Your task to perform on an android device: clear all cookies in the chrome app Image 0: 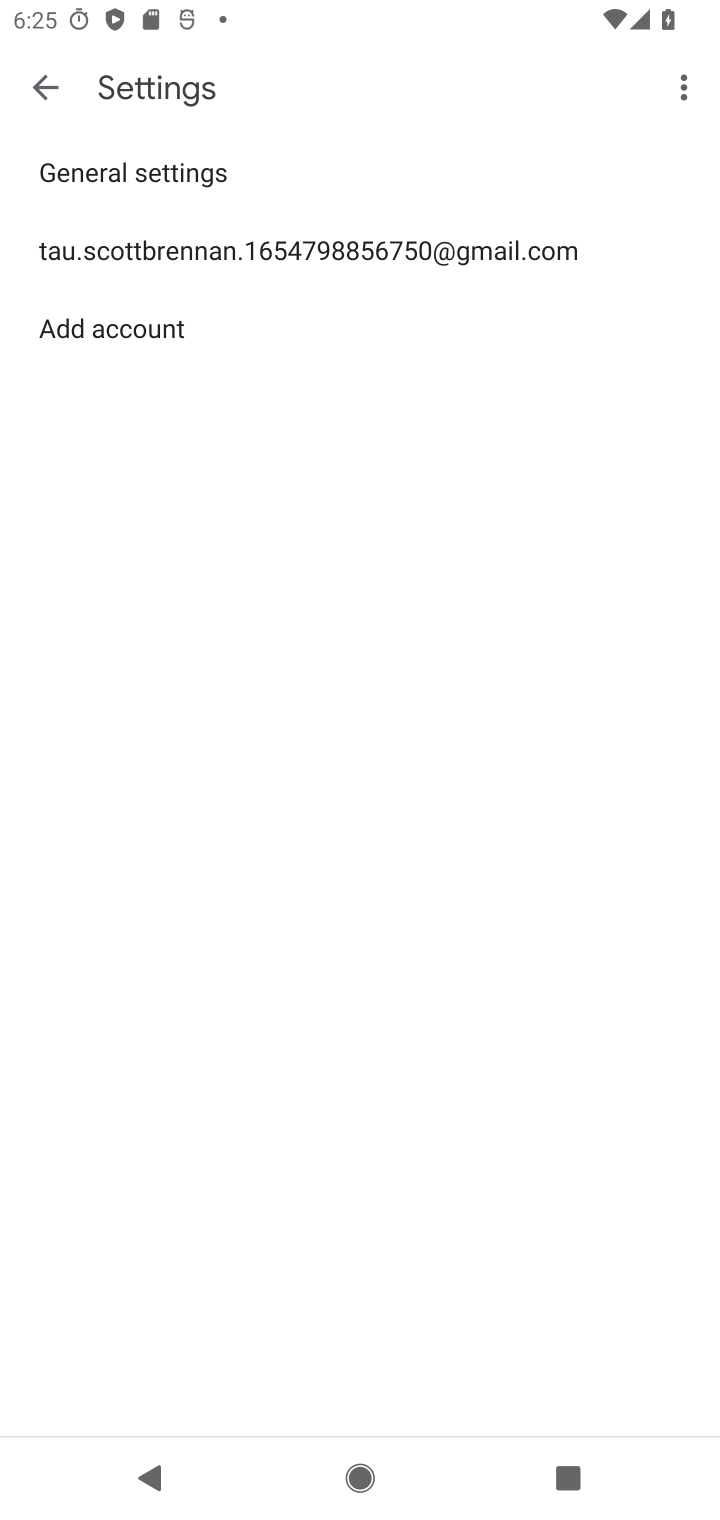
Step 0: press home button
Your task to perform on an android device: clear all cookies in the chrome app Image 1: 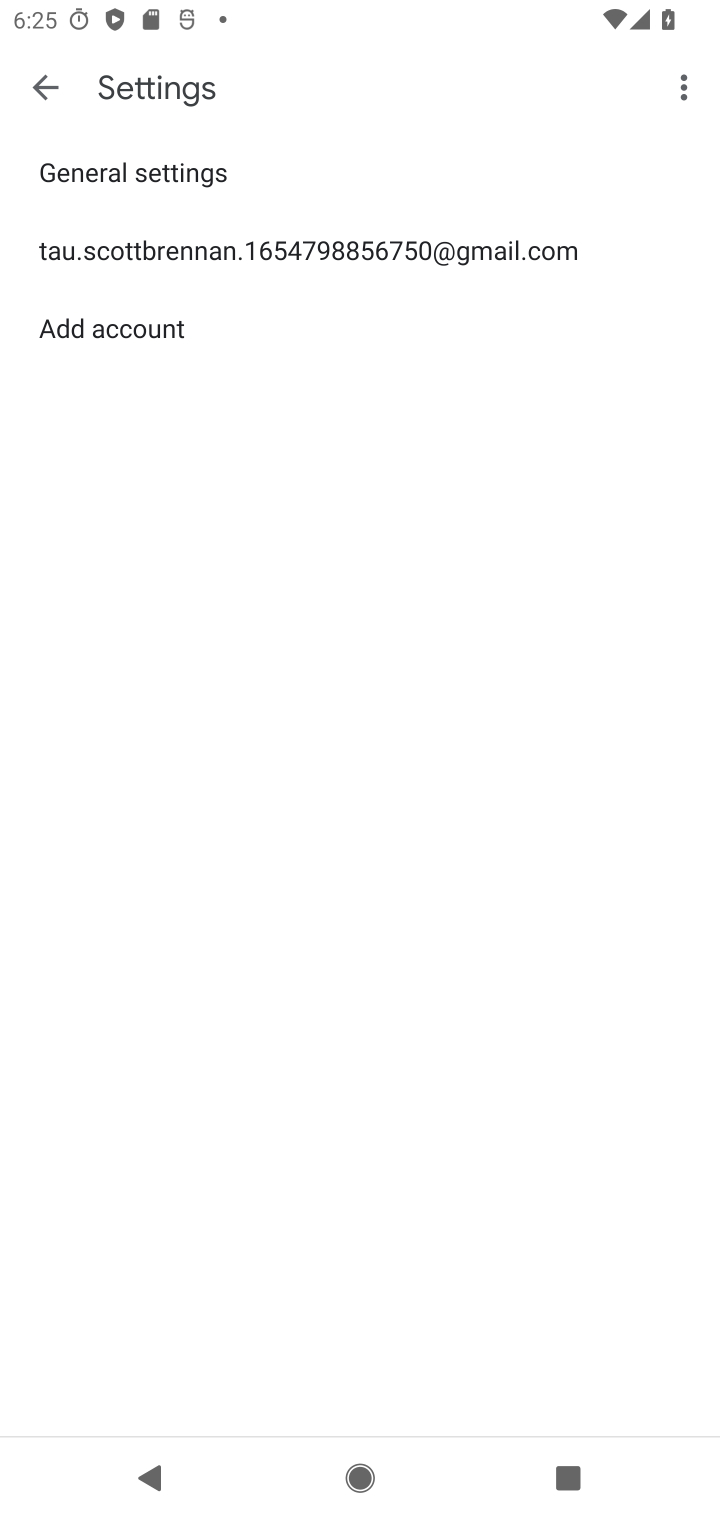
Step 1: press home button
Your task to perform on an android device: clear all cookies in the chrome app Image 2: 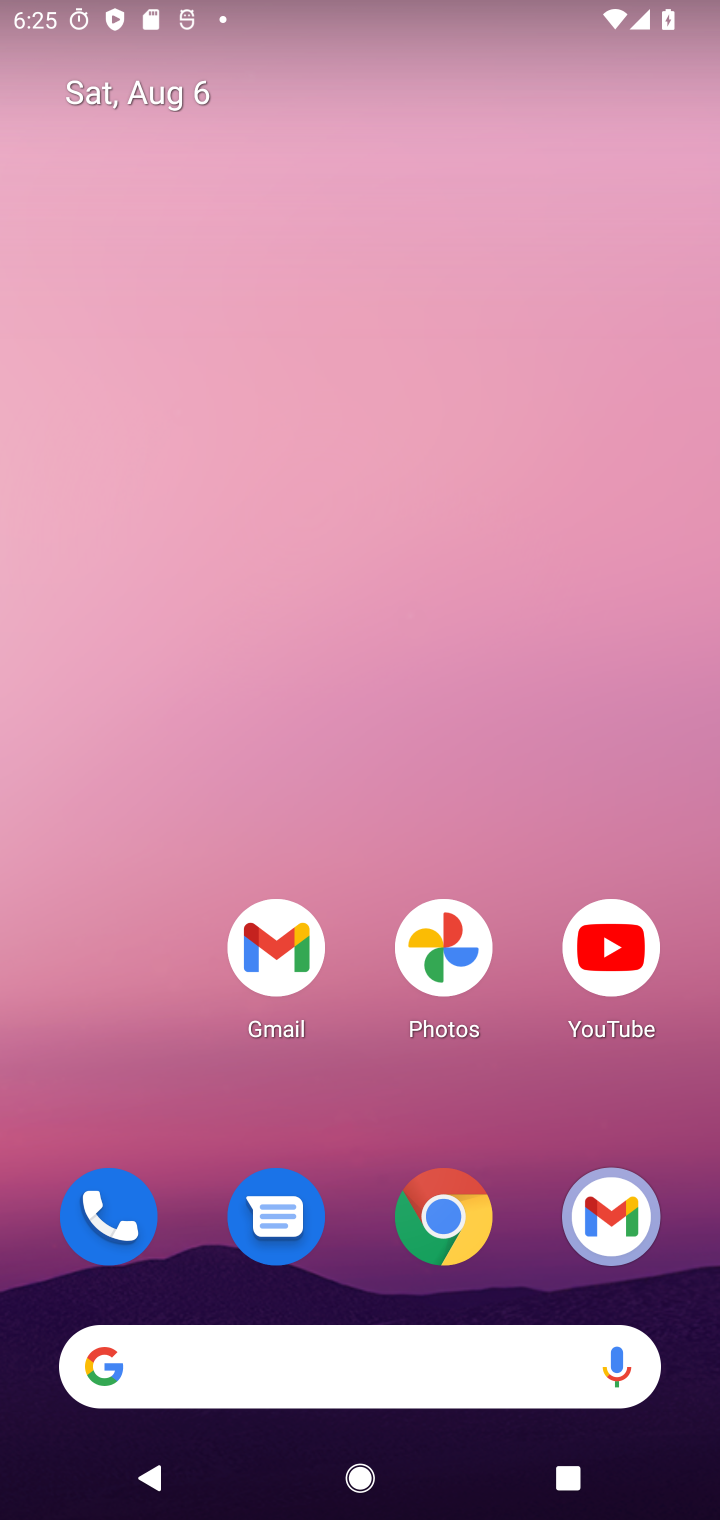
Step 2: press home button
Your task to perform on an android device: clear all cookies in the chrome app Image 3: 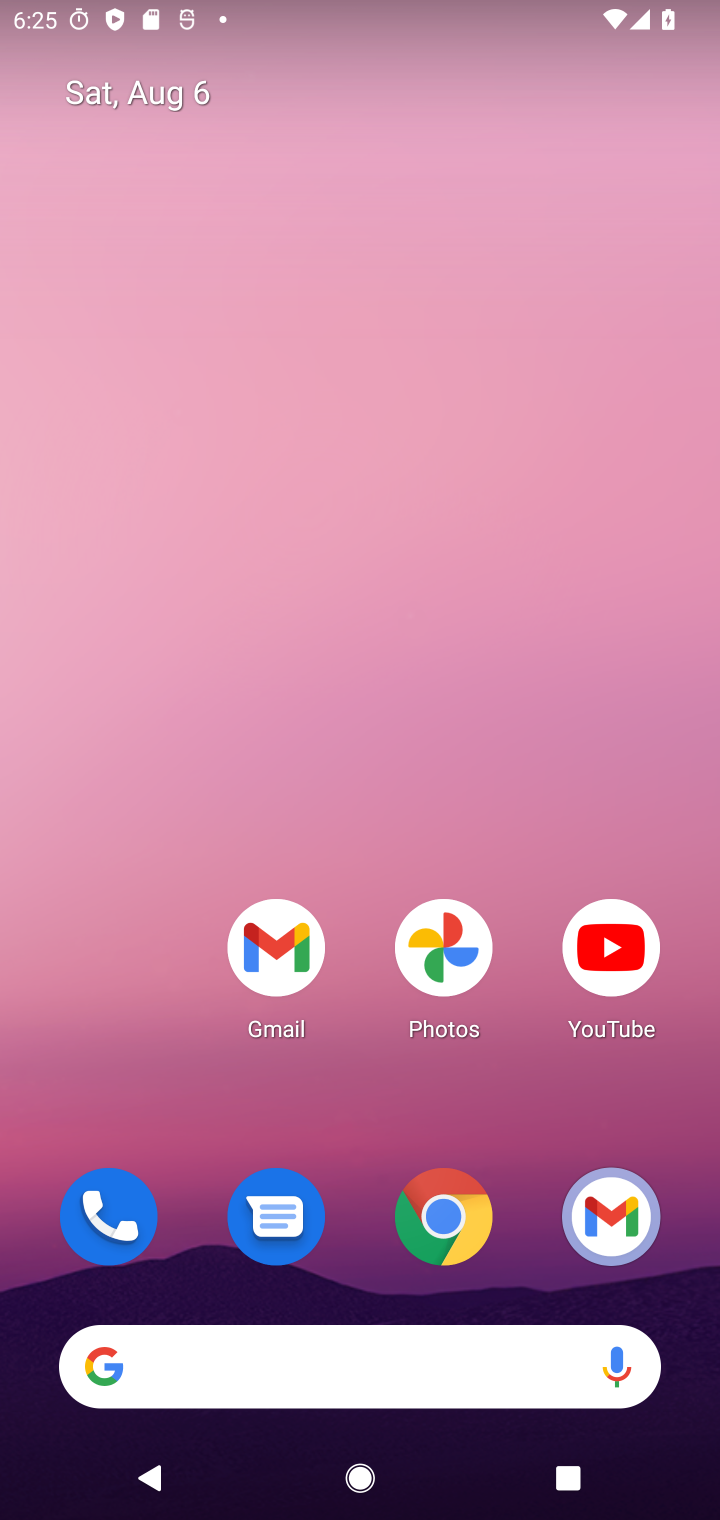
Step 3: drag from (535, 1126) to (581, 204)
Your task to perform on an android device: clear all cookies in the chrome app Image 4: 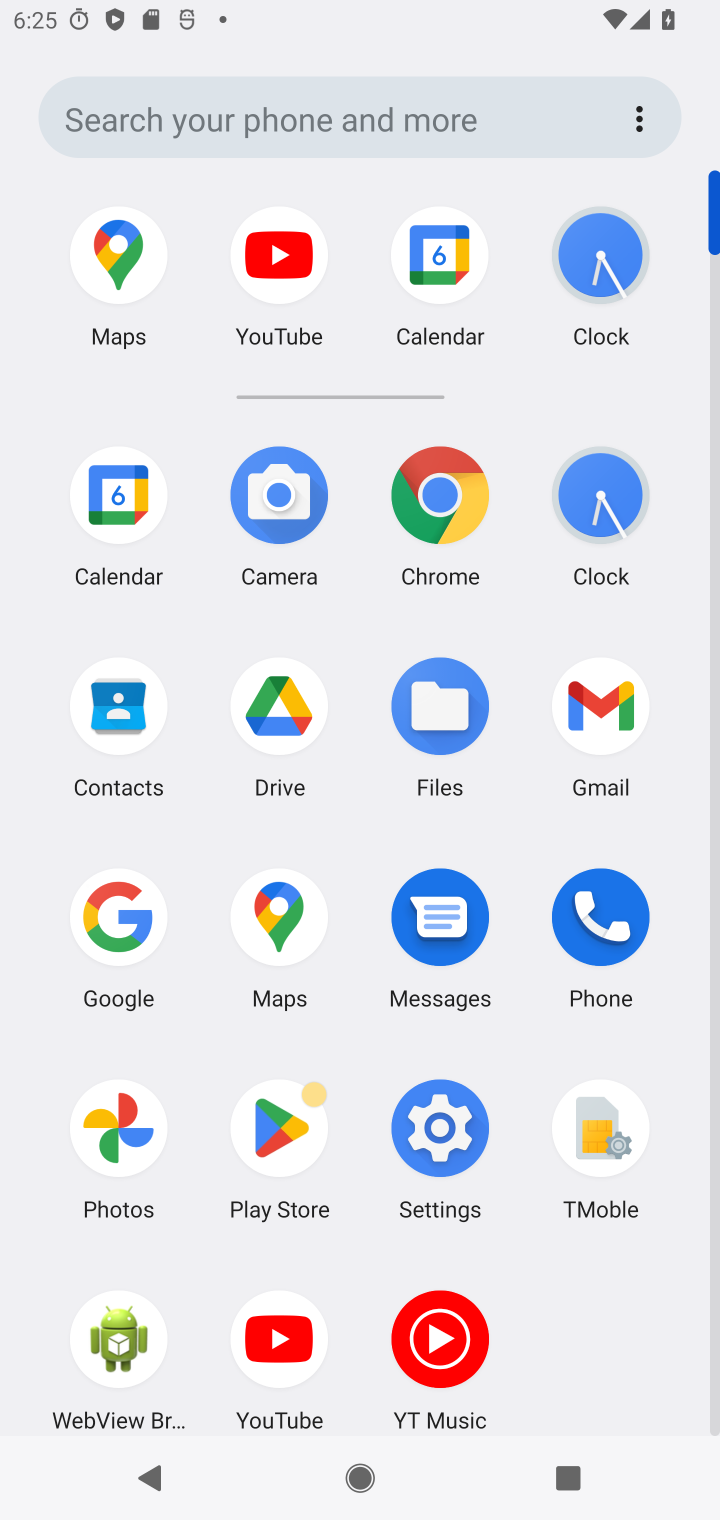
Step 4: click (432, 497)
Your task to perform on an android device: clear all cookies in the chrome app Image 5: 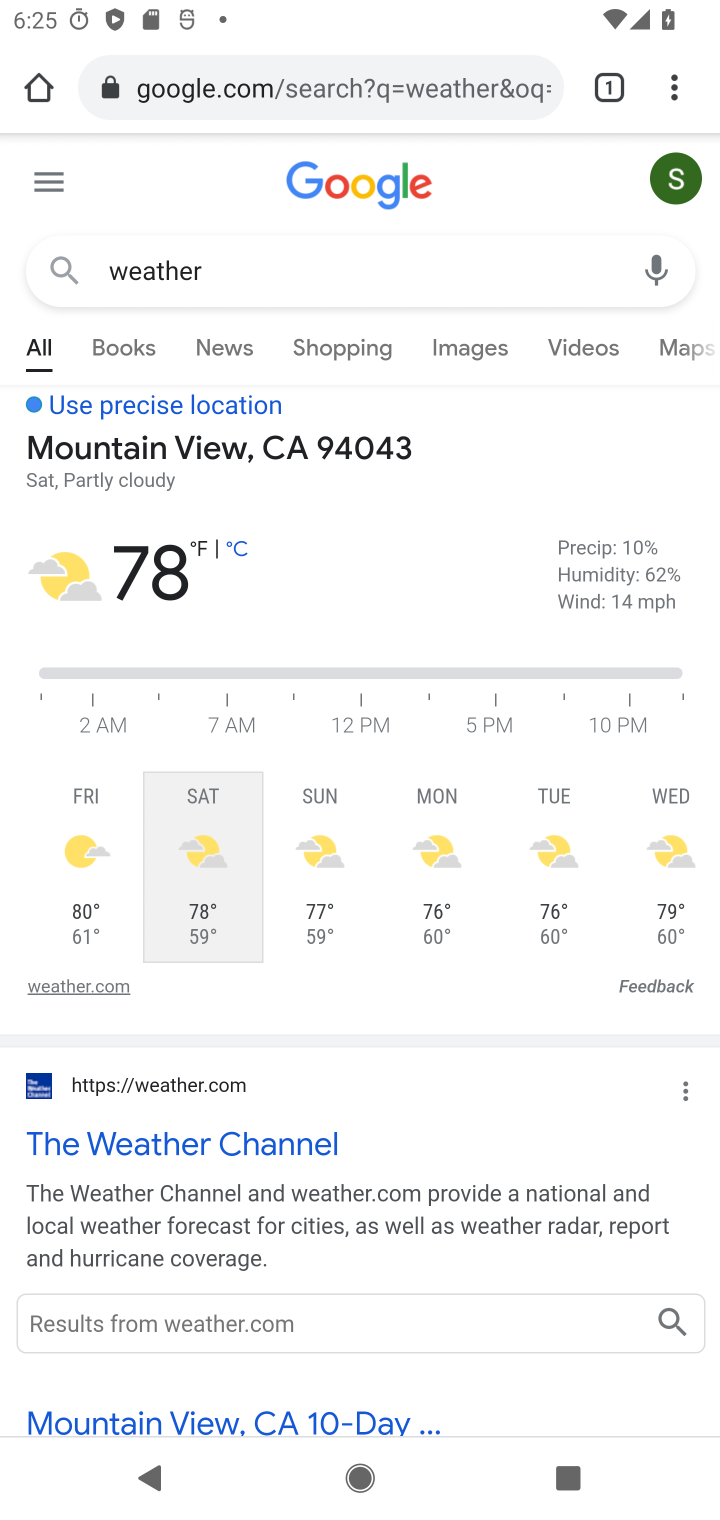
Step 5: drag from (681, 72) to (429, 441)
Your task to perform on an android device: clear all cookies in the chrome app Image 6: 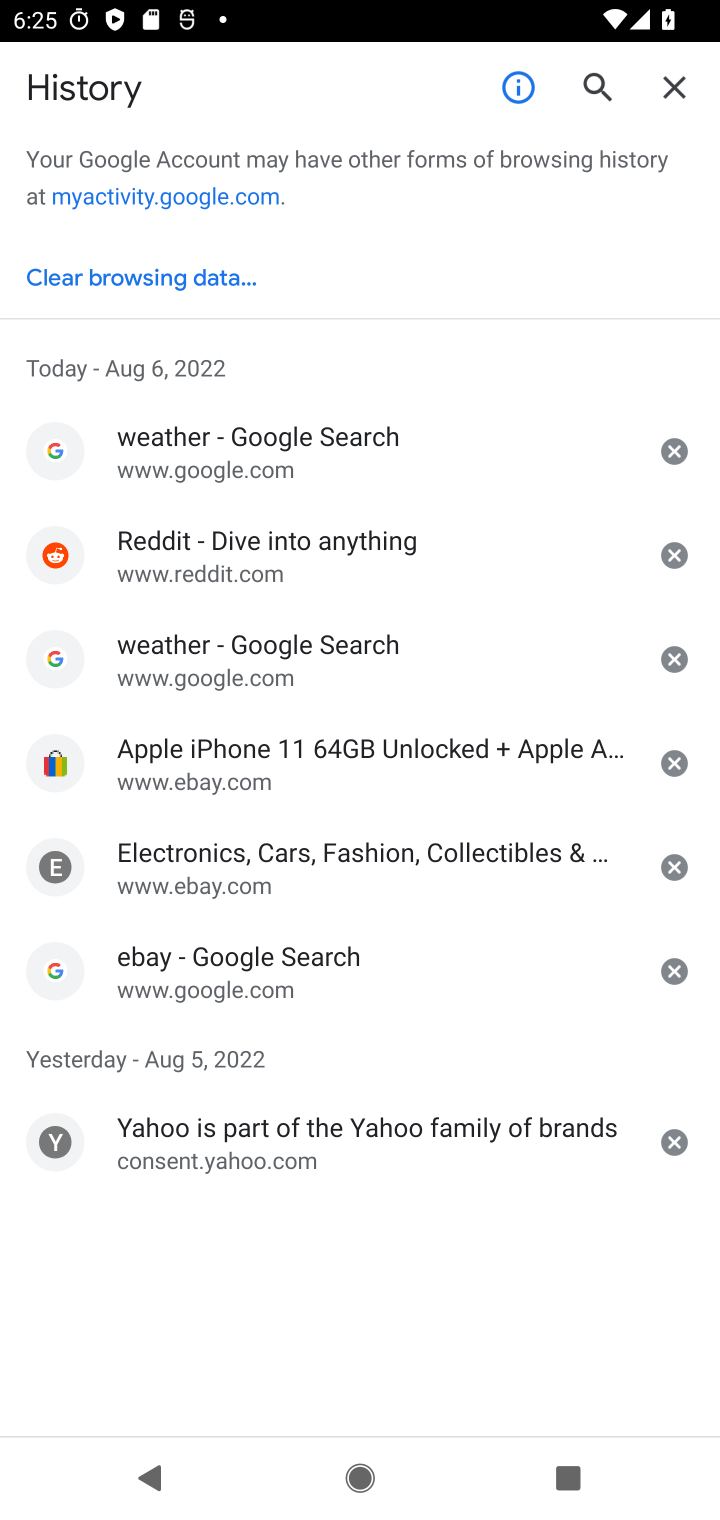
Step 6: click (108, 271)
Your task to perform on an android device: clear all cookies in the chrome app Image 7: 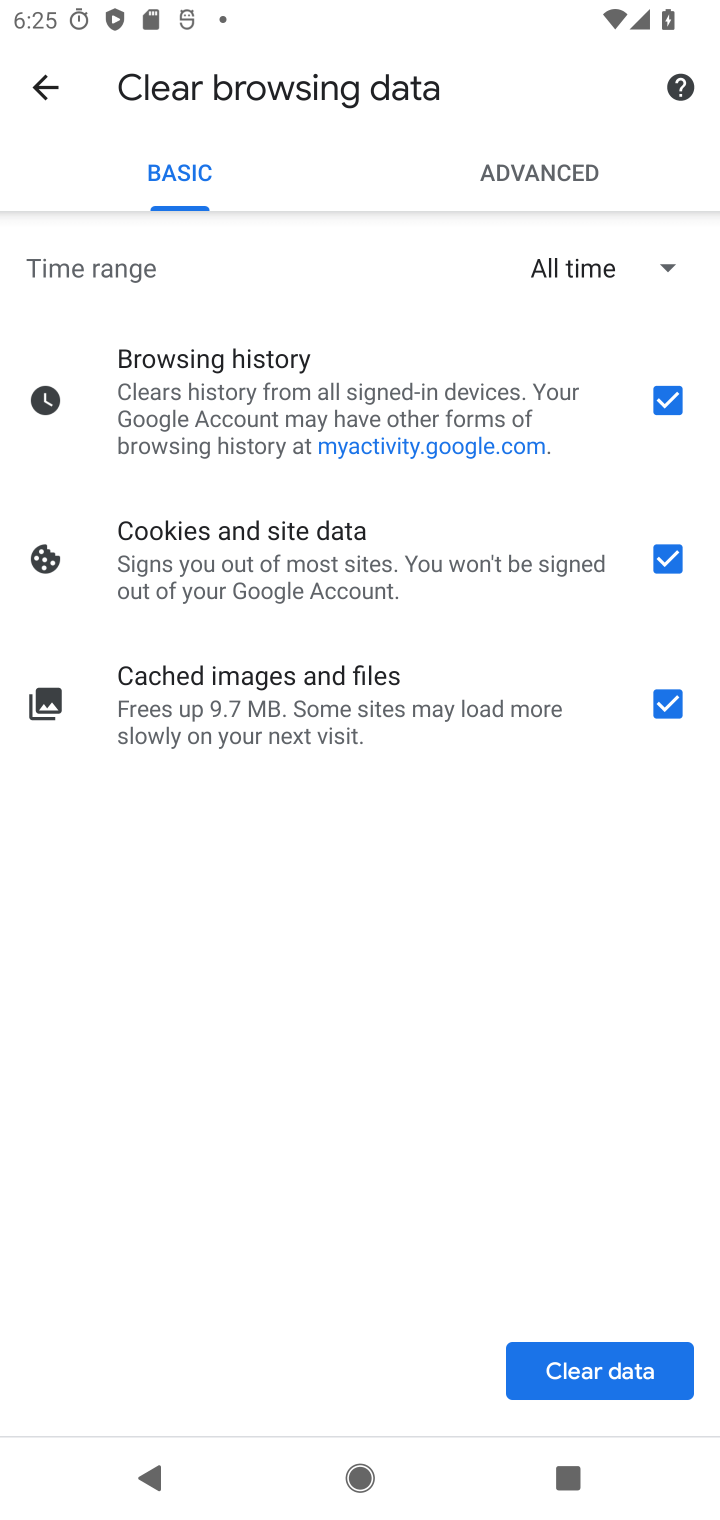
Step 7: click (599, 1373)
Your task to perform on an android device: clear all cookies in the chrome app Image 8: 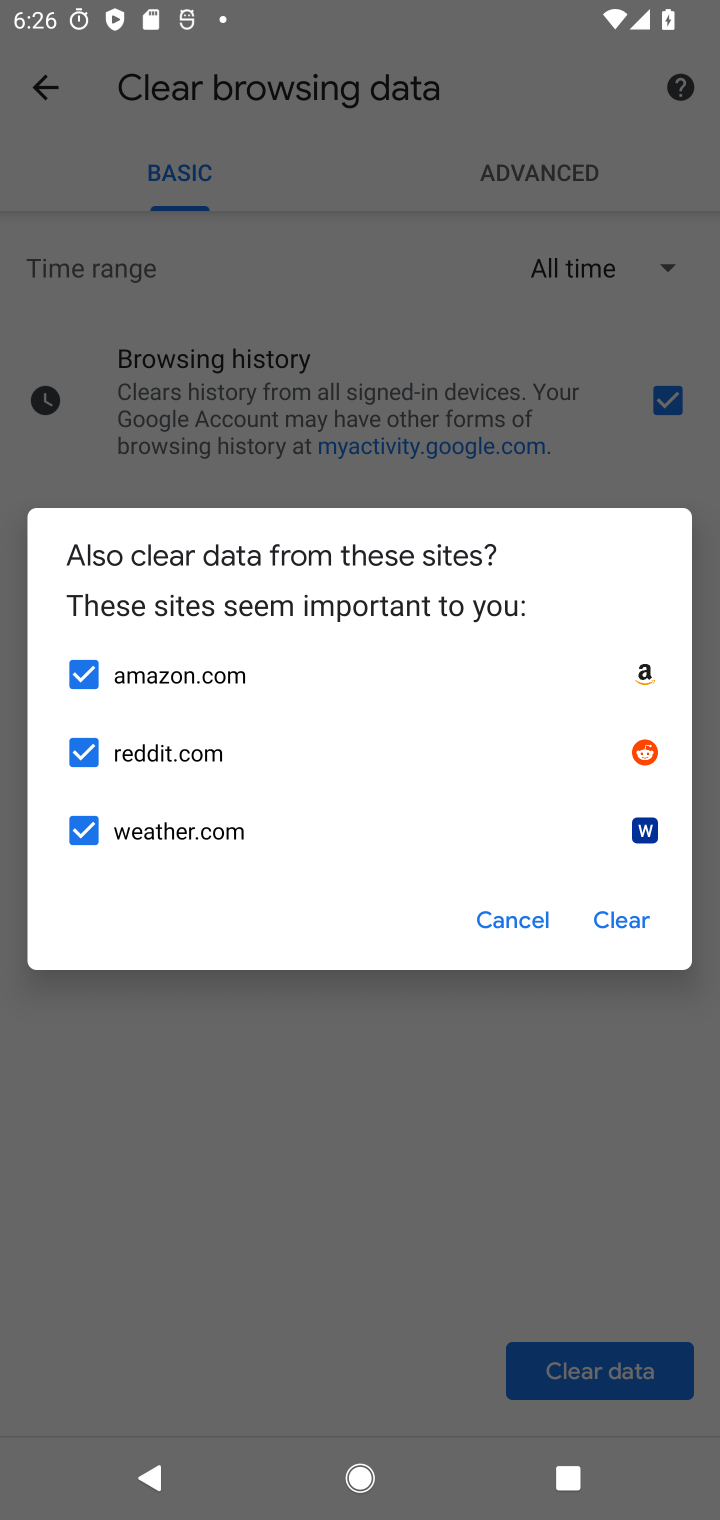
Step 8: click (611, 921)
Your task to perform on an android device: clear all cookies in the chrome app Image 9: 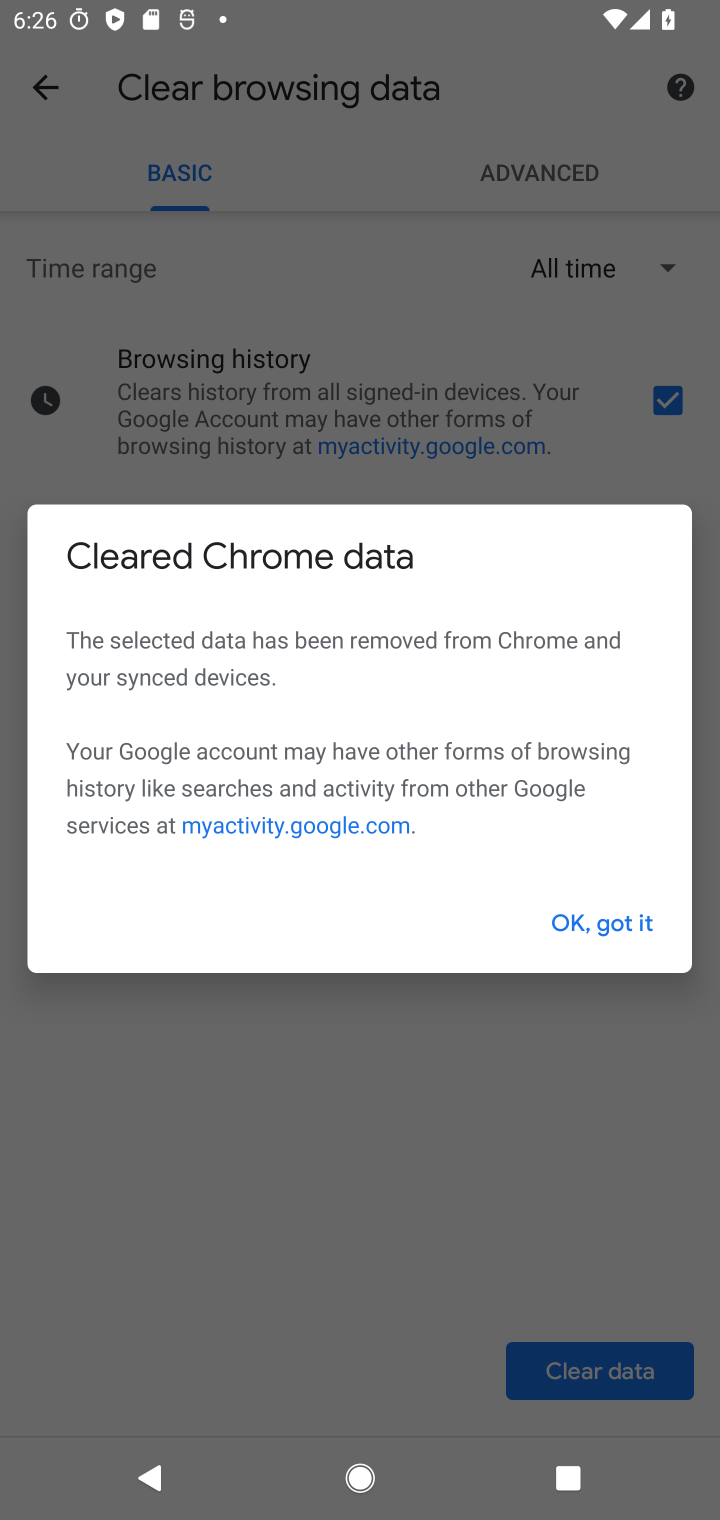
Step 9: click (589, 925)
Your task to perform on an android device: clear all cookies in the chrome app Image 10: 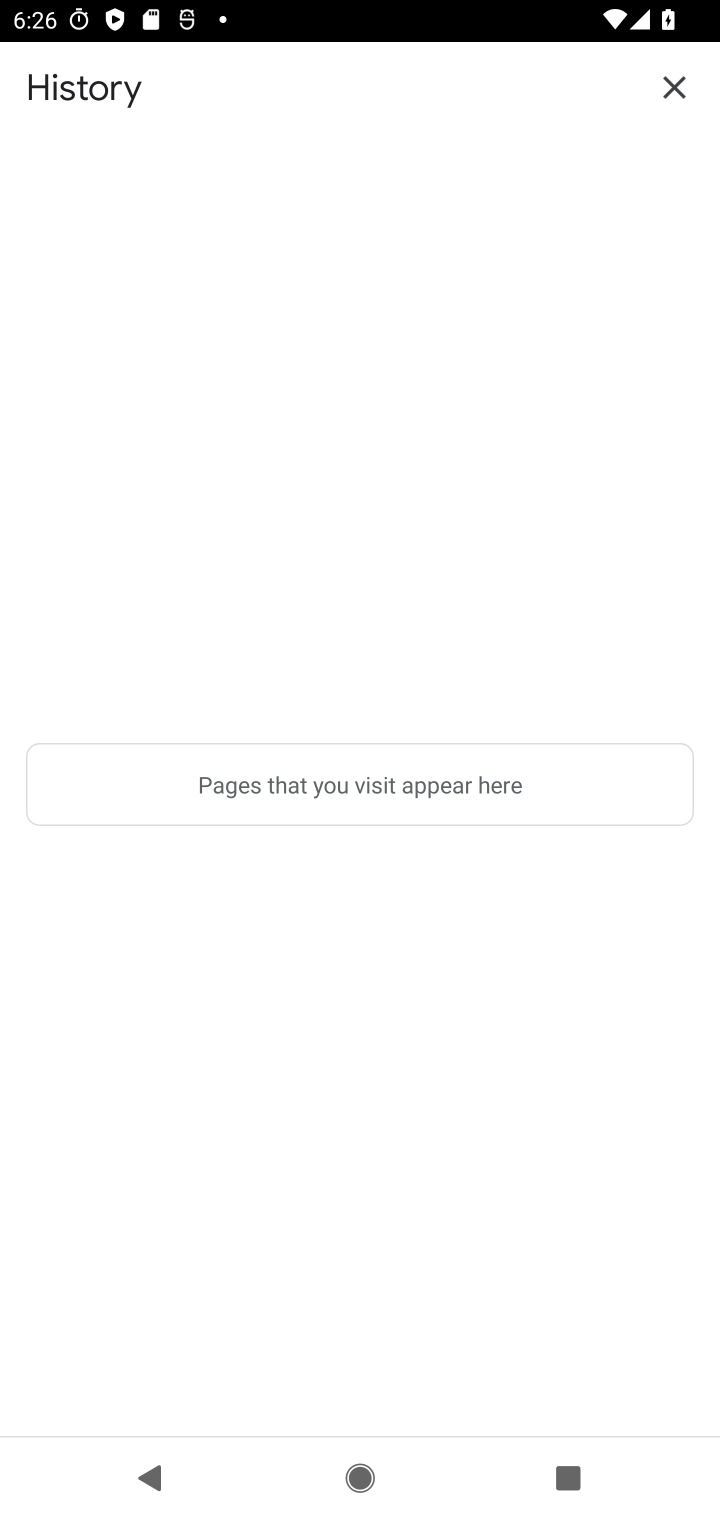
Step 10: task complete